Your task to perform on an android device: Go to network settings Image 0: 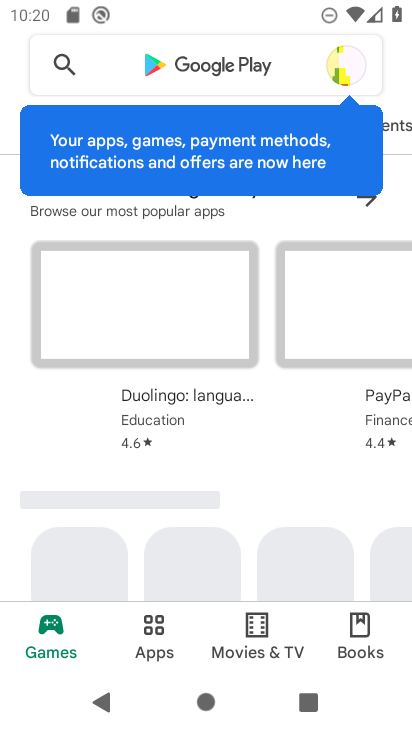
Step 0: press home button
Your task to perform on an android device: Go to network settings Image 1: 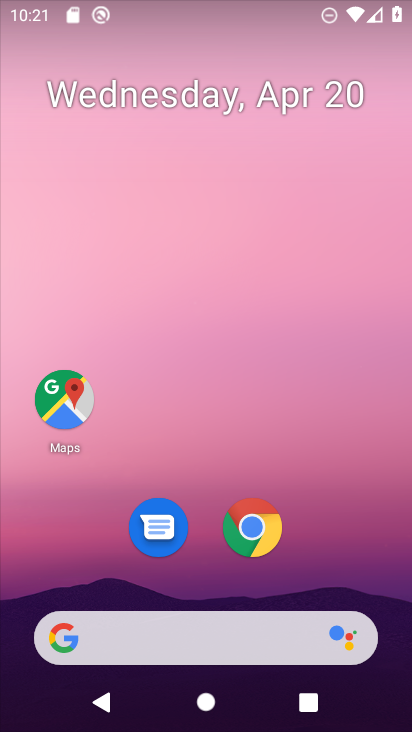
Step 1: drag from (196, 560) to (366, 5)
Your task to perform on an android device: Go to network settings Image 2: 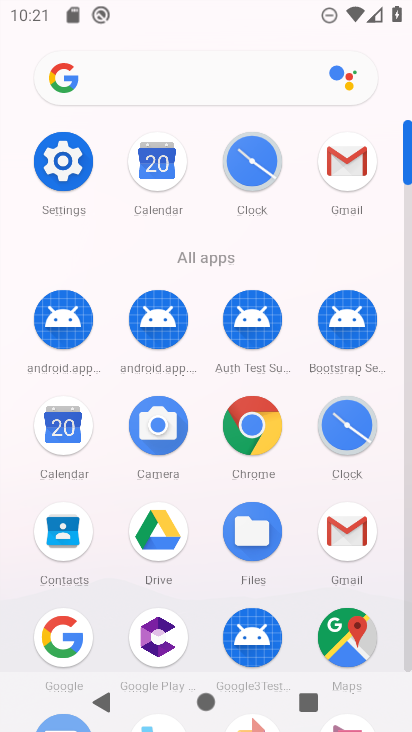
Step 2: click (51, 170)
Your task to perform on an android device: Go to network settings Image 3: 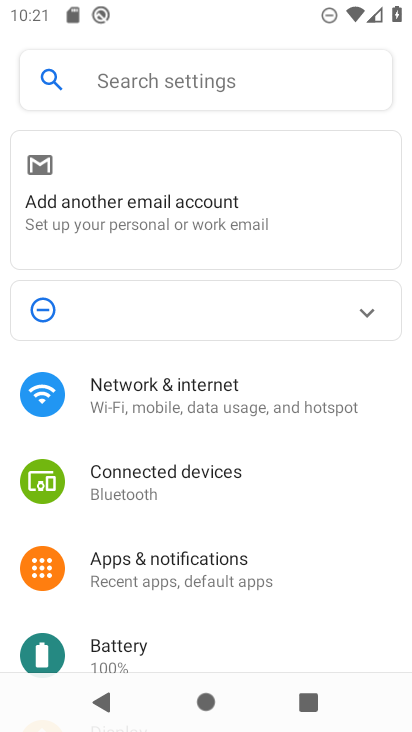
Step 3: click (150, 407)
Your task to perform on an android device: Go to network settings Image 4: 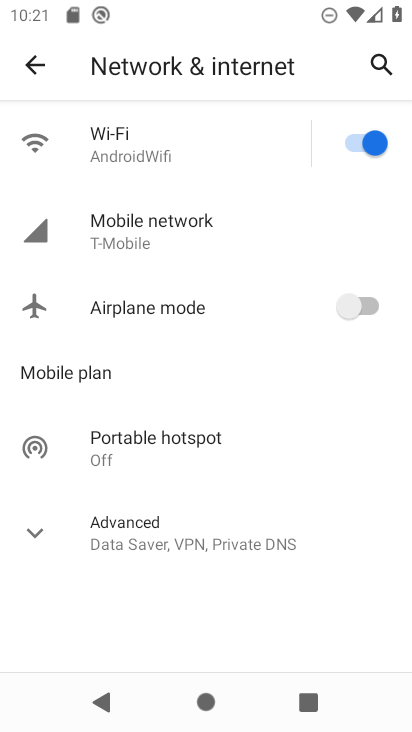
Step 4: task complete